Your task to perform on an android device: Toggle the flashlight Image 0: 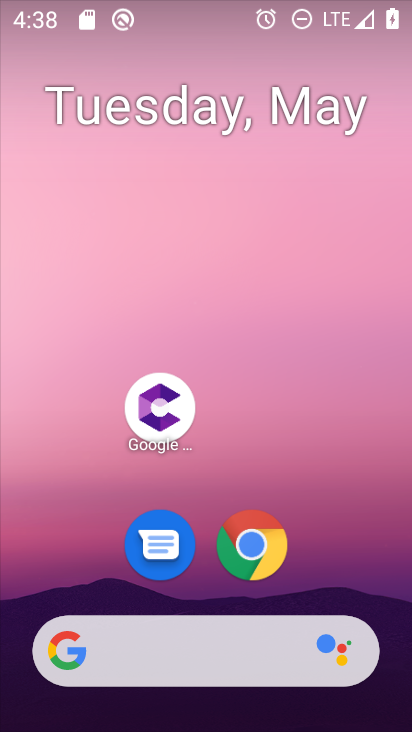
Step 0: drag from (208, 0) to (208, 286)
Your task to perform on an android device: Toggle the flashlight Image 1: 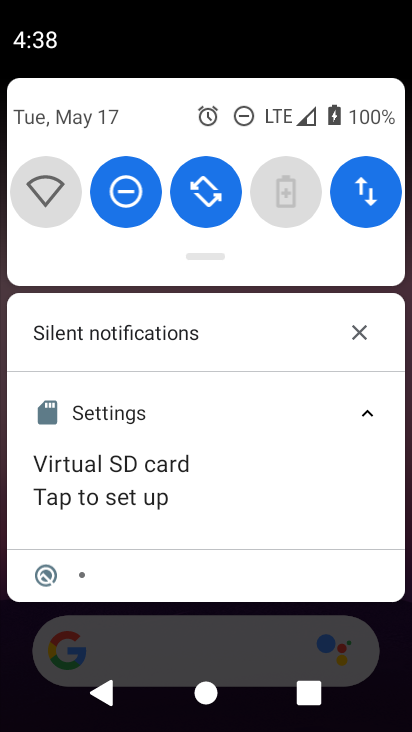
Step 1: drag from (248, 124) to (268, 392)
Your task to perform on an android device: Toggle the flashlight Image 2: 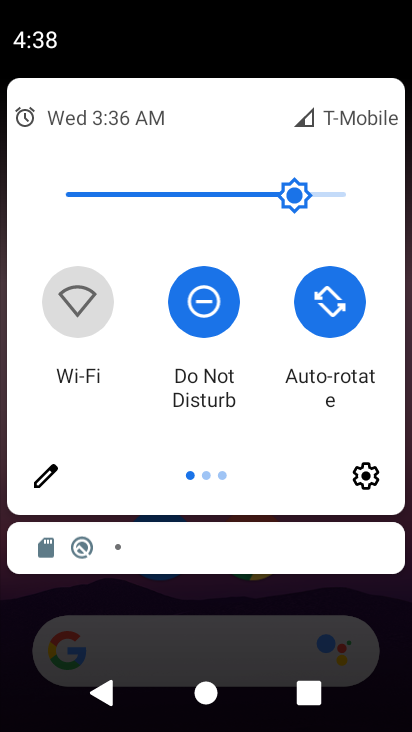
Step 2: click (56, 484)
Your task to perform on an android device: Toggle the flashlight Image 3: 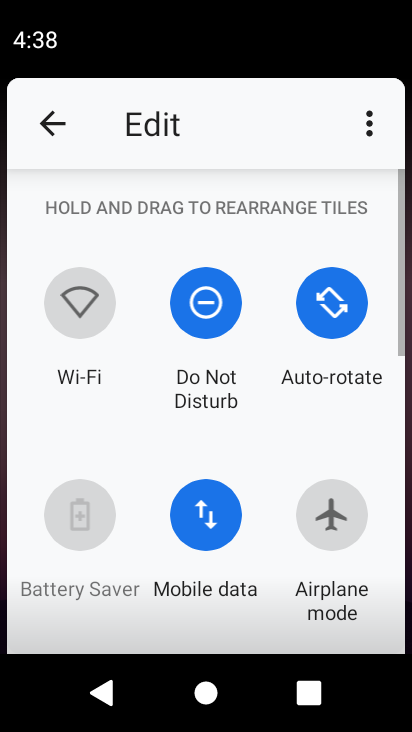
Step 3: task complete